Your task to perform on an android device: turn on the 12-hour format for clock Image 0: 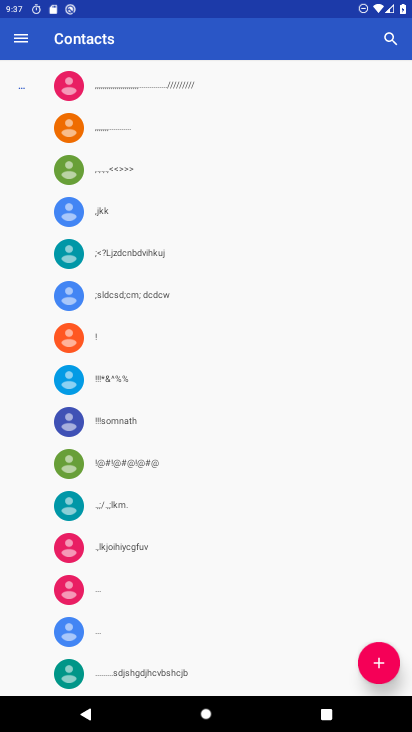
Step 0: press home button
Your task to perform on an android device: turn on the 12-hour format for clock Image 1: 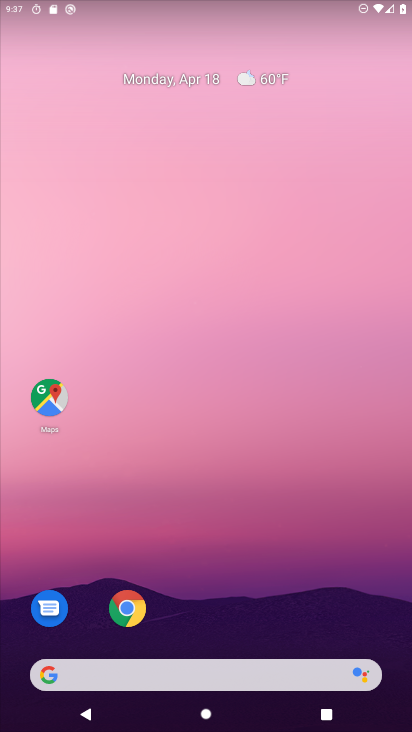
Step 1: click (132, 603)
Your task to perform on an android device: turn on the 12-hour format for clock Image 2: 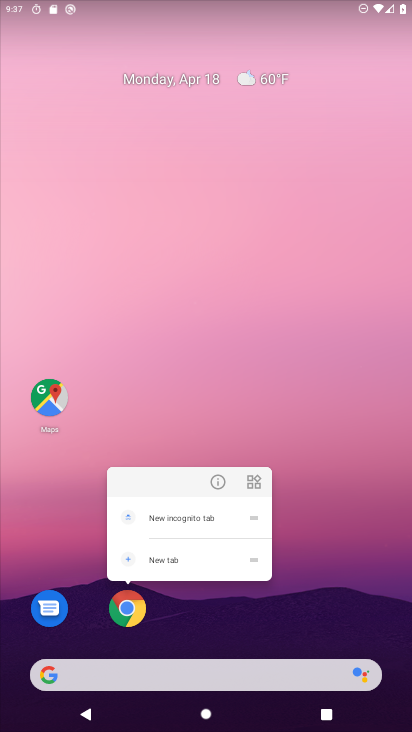
Step 2: click (132, 603)
Your task to perform on an android device: turn on the 12-hour format for clock Image 3: 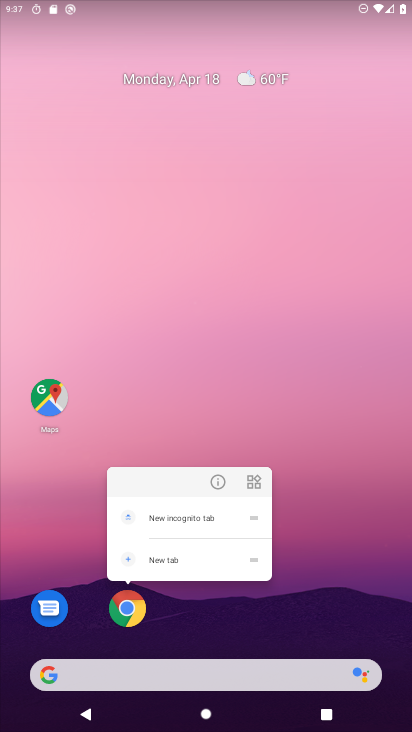
Step 3: click (132, 603)
Your task to perform on an android device: turn on the 12-hour format for clock Image 4: 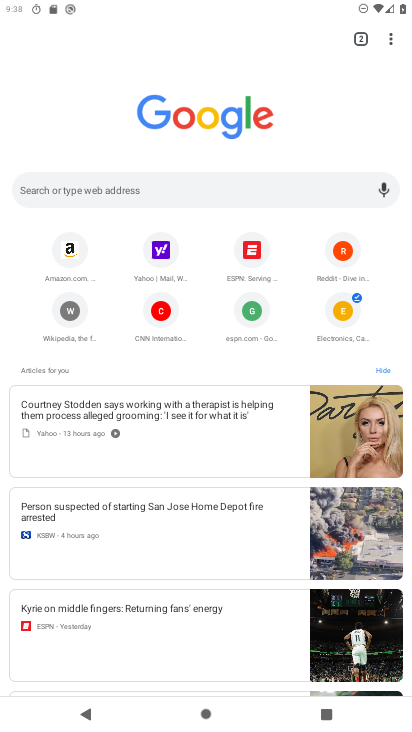
Step 4: press back button
Your task to perform on an android device: turn on the 12-hour format for clock Image 5: 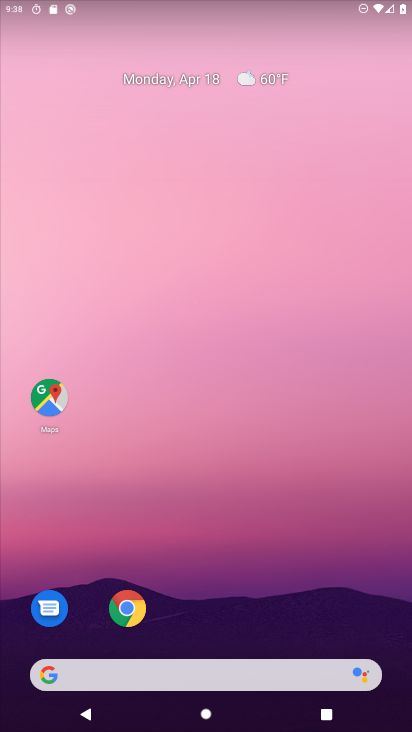
Step 5: drag from (313, 288) to (339, 61)
Your task to perform on an android device: turn on the 12-hour format for clock Image 6: 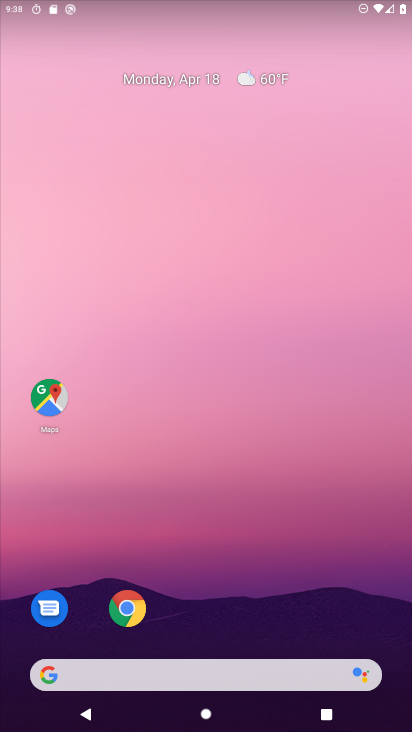
Step 6: drag from (328, 379) to (356, 60)
Your task to perform on an android device: turn on the 12-hour format for clock Image 7: 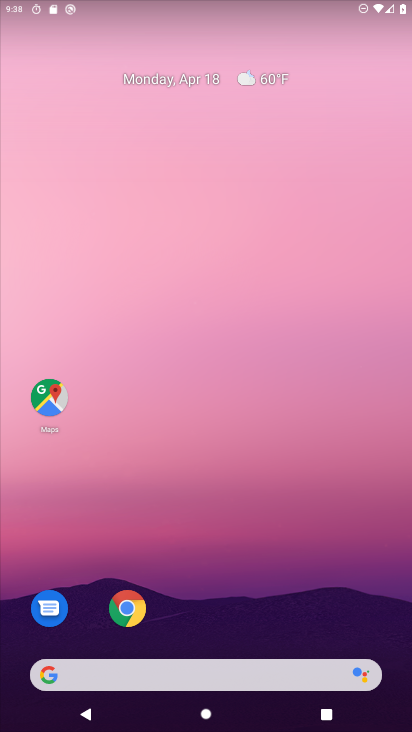
Step 7: drag from (328, 407) to (340, 3)
Your task to perform on an android device: turn on the 12-hour format for clock Image 8: 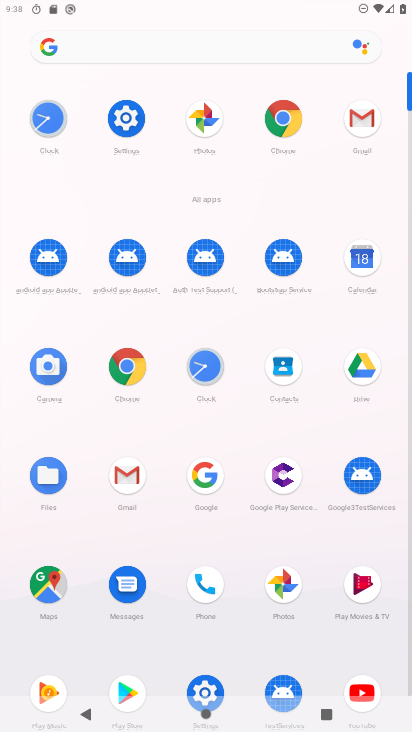
Step 8: click (205, 367)
Your task to perform on an android device: turn on the 12-hour format for clock Image 9: 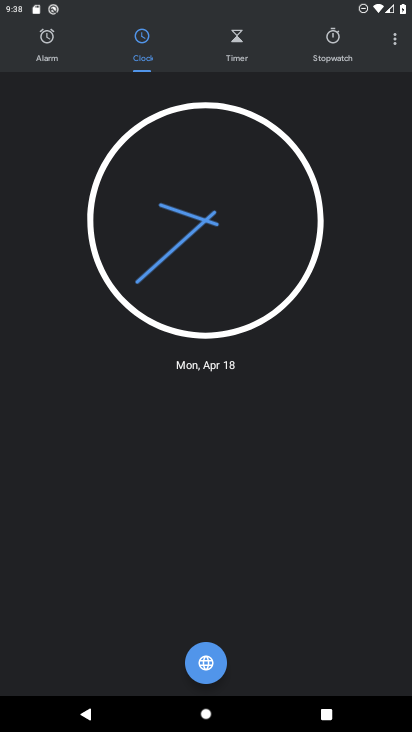
Step 9: click (393, 34)
Your task to perform on an android device: turn on the 12-hour format for clock Image 10: 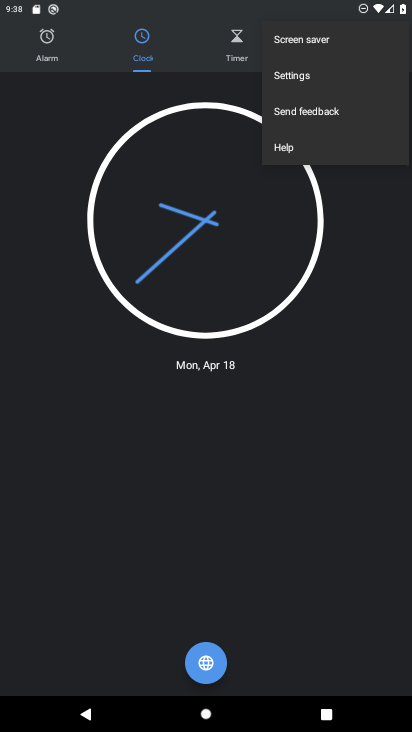
Step 10: click (292, 69)
Your task to perform on an android device: turn on the 12-hour format for clock Image 11: 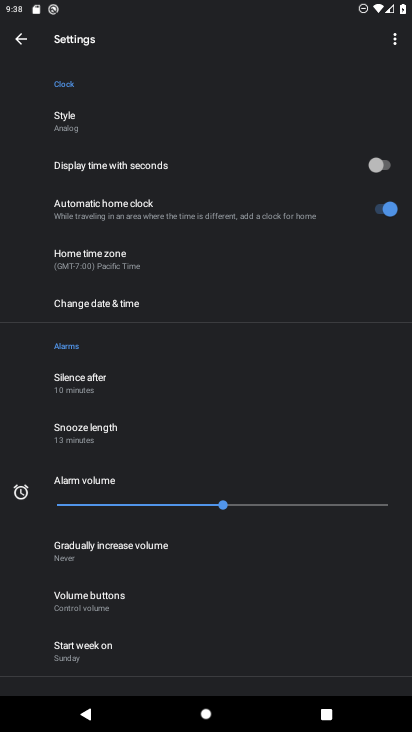
Step 11: click (112, 302)
Your task to perform on an android device: turn on the 12-hour format for clock Image 12: 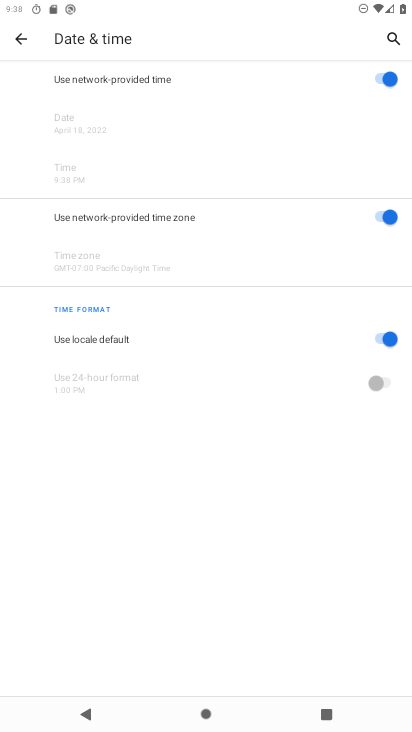
Step 12: task complete